Your task to perform on an android device: Open Google Chrome and click the shortcut for Amazon.com Image 0: 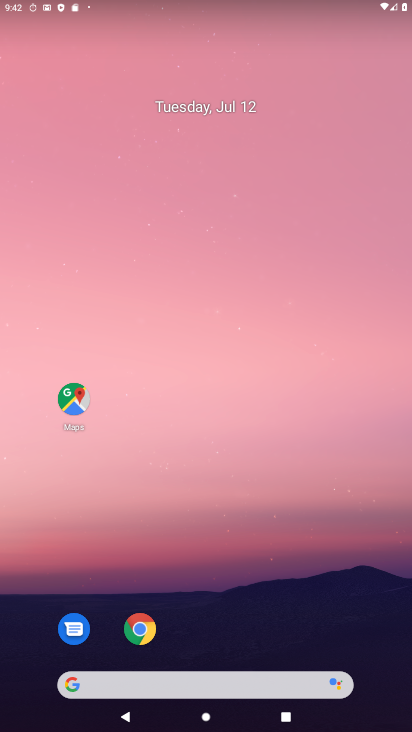
Step 0: drag from (183, 471) to (136, 135)
Your task to perform on an android device: Open Google Chrome and click the shortcut for Amazon.com Image 1: 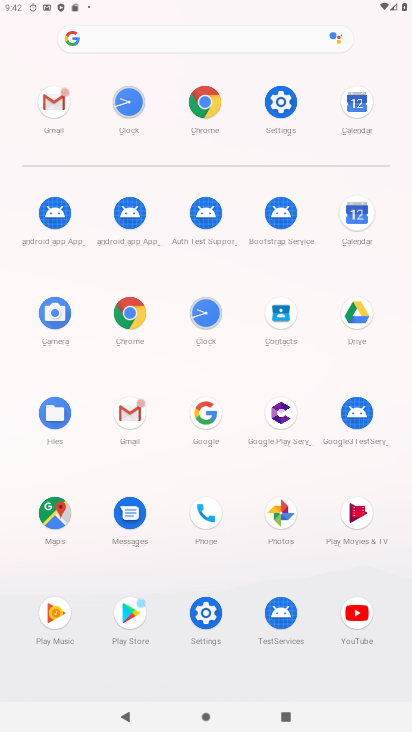
Step 1: click (140, 321)
Your task to perform on an android device: Open Google Chrome and click the shortcut for Amazon.com Image 2: 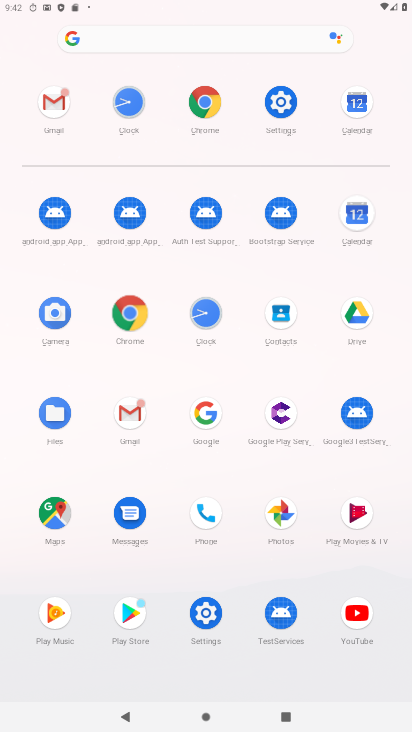
Step 2: click (140, 318)
Your task to perform on an android device: Open Google Chrome and click the shortcut for Amazon.com Image 3: 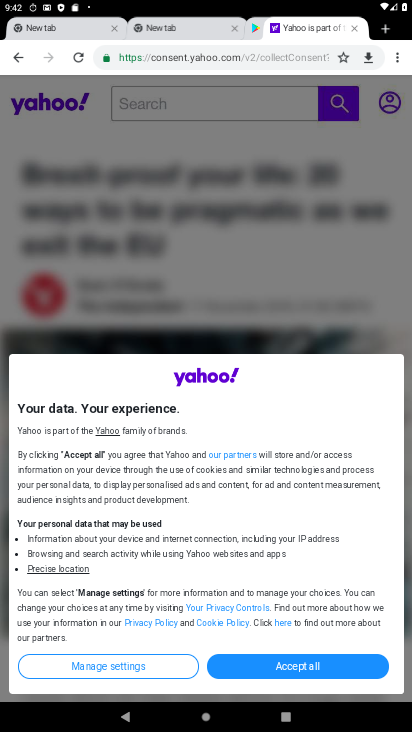
Step 3: click (397, 62)
Your task to perform on an android device: Open Google Chrome and click the shortcut for Amazon.com Image 4: 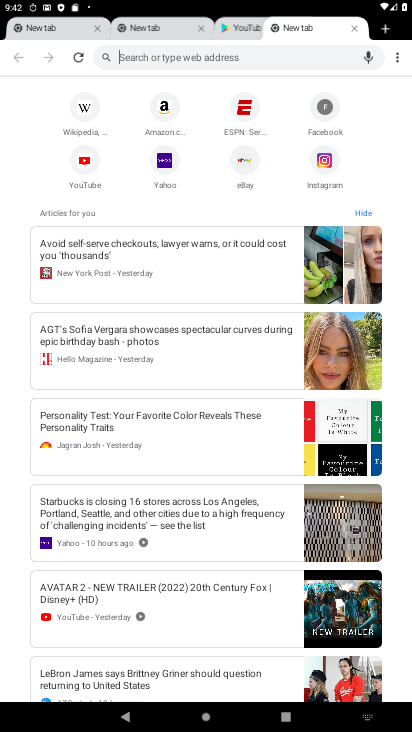
Step 4: click (167, 104)
Your task to perform on an android device: Open Google Chrome and click the shortcut for Amazon.com Image 5: 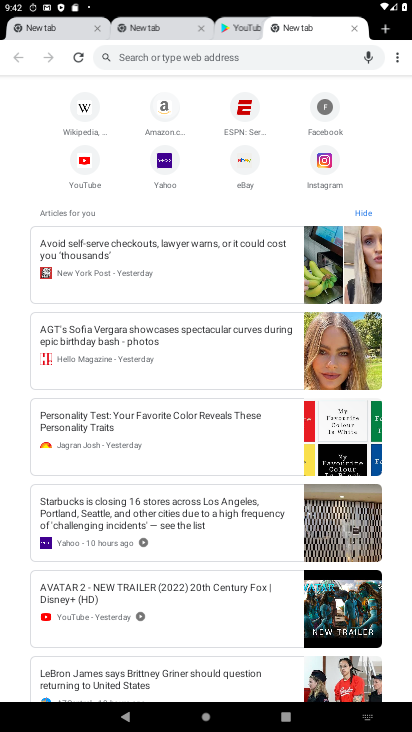
Step 5: click (167, 104)
Your task to perform on an android device: Open Google Chrome and click the shortcut for Amazon.com Image 6: 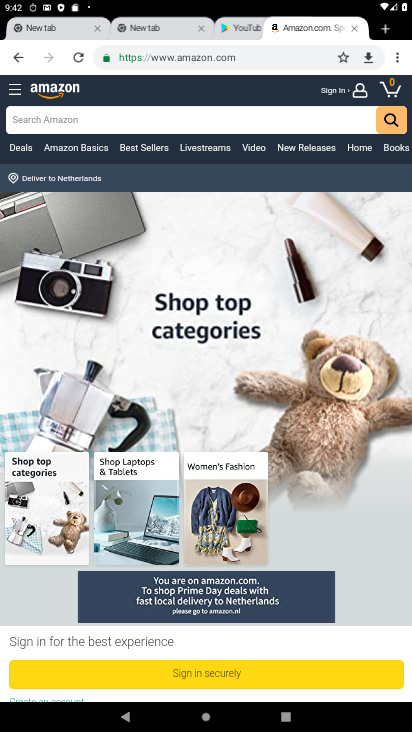
Step 6: task complete